Your task to perform on an android device: add a label to a message in the gmail app Image 0: 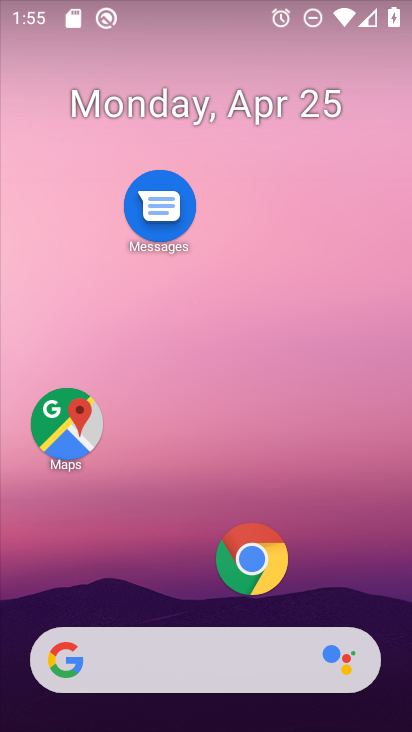
Step 0: drag from (157, 542) to (161, 122)
Your task to perform on an android device: add a label to a message in the gmail app Image 1: 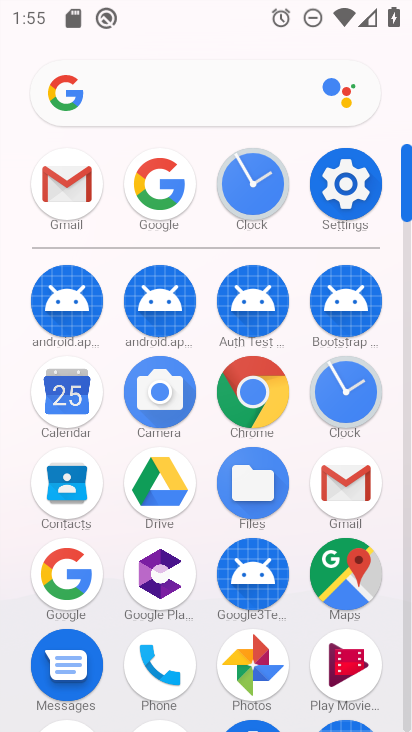
Step 1: click (354, 479)
Your task to perform on an android device: add a label to a message in the gmail app Image 2: 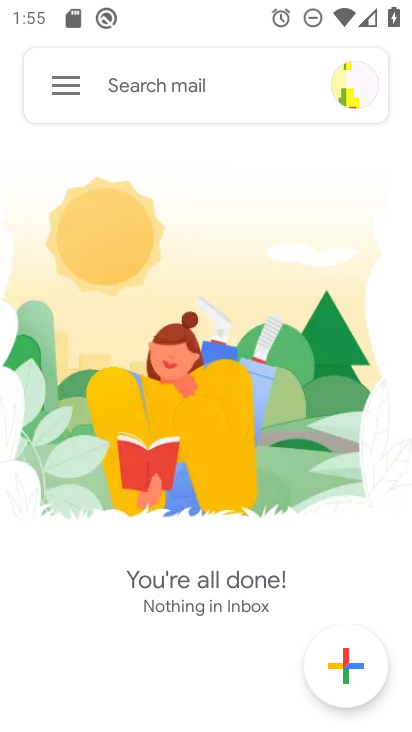
Step 2: click (63, 88)
Your task to perform on an android device: add a label to a message in the gmail app Image 3: 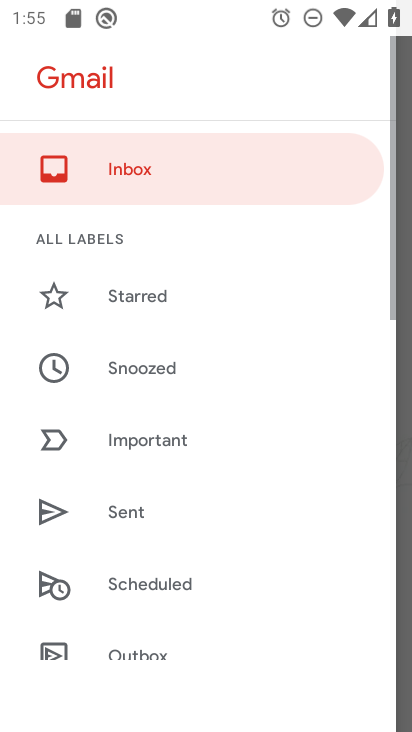
Step 3: drag from (177, 523) to (174, 162)
Your task to perform on an android device: add a label to a message in the gmail app Image 4: 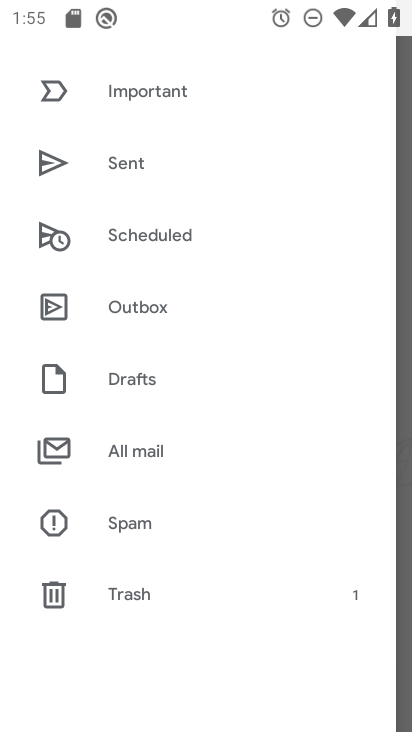
Step 4: click (128, 463)
Your task to perform on an android device: add a label to a message in the gmail app Image 5: 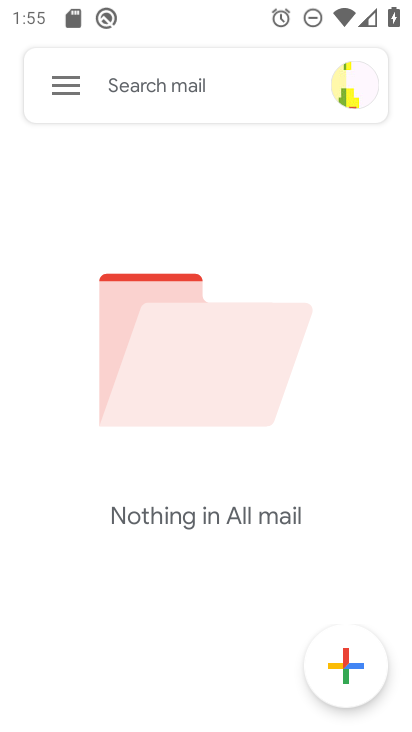
Step 5: task complete